Your task to perform on an android device: Go to display settings Image 0: 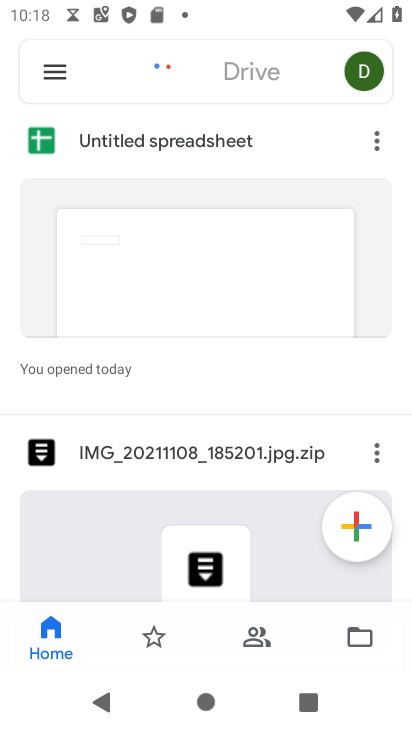
Step 0: press home button
Your task to perform on an android device: Go to display settings Image 1: 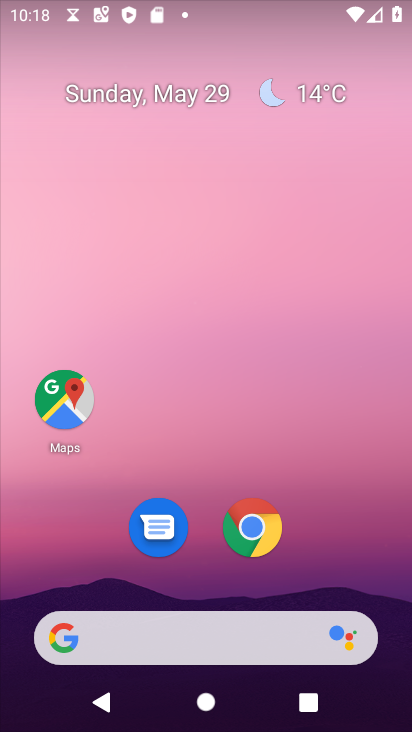
Step 1: drag from (212, 638) to (311, 150)
Your task to perform on an android device: Go to display settings Image 2: 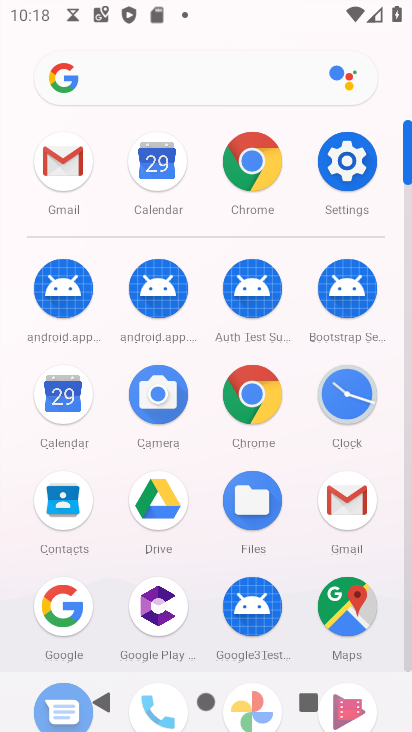
Step 2: click (345, 176)
Your task to perform on an android device: Go to display settings Image 3: 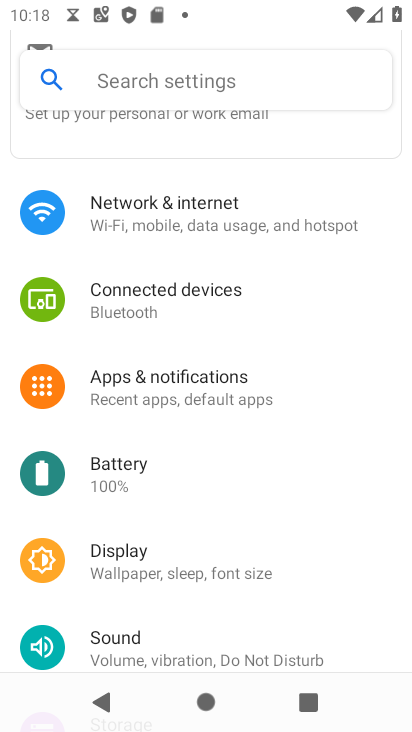
Step 3: click (119, 559)
Your task to perform on an android device: Go to display settings Image 4: 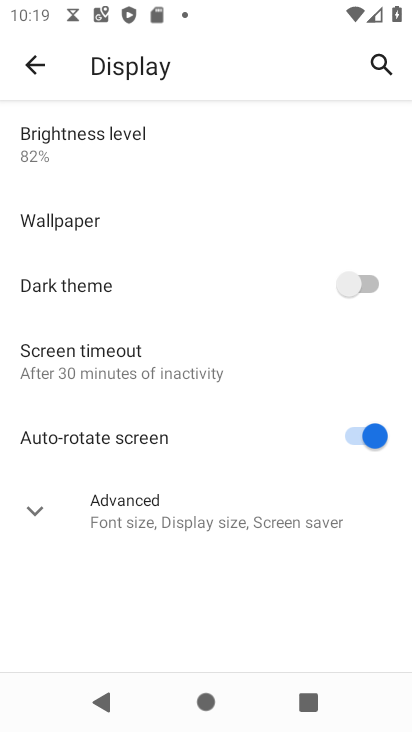
Step 4: task complete